Your task to perform on an android device: Show me popular videos on Youtube Image 0: 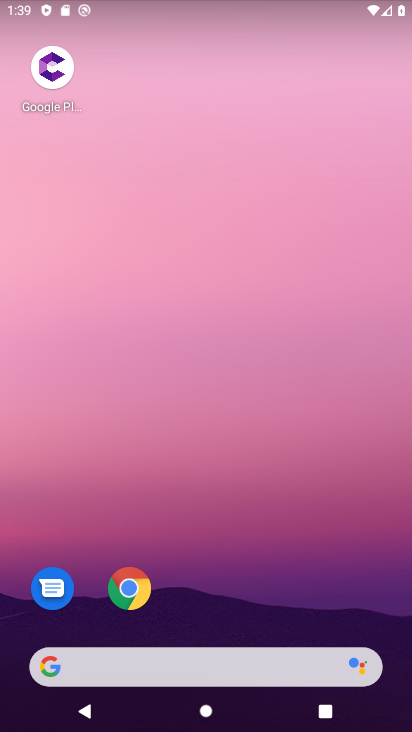
Step 0: drag from (133, 633) to (102, 12)
Your task to perform on an android device: Show me popular videos on Youtube Image 1: 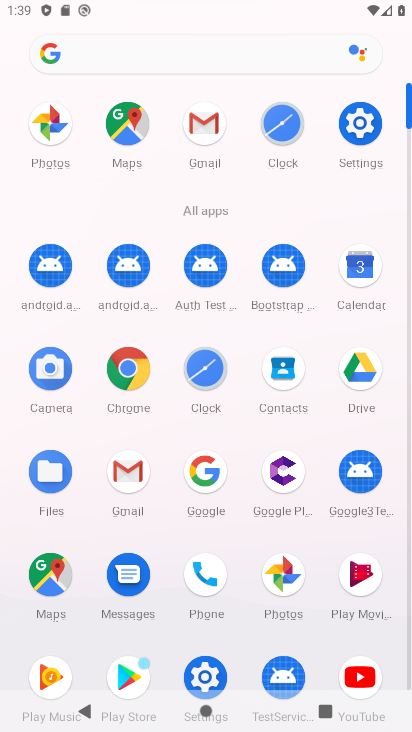
Step 1: click (365, 669)
Your task to perform on an android device: Show me popular videos on Youtube Image 2: 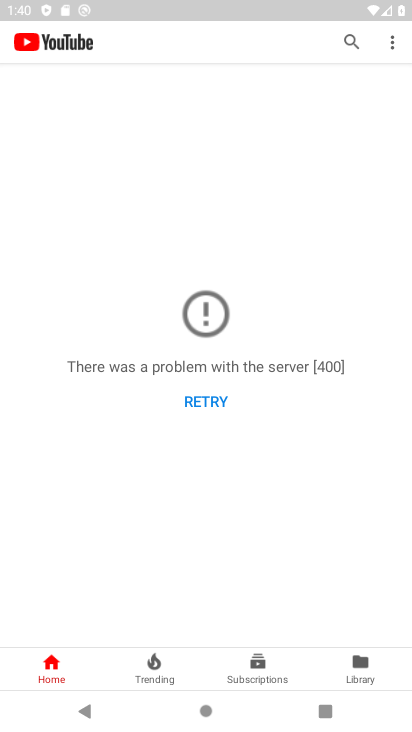
Step 2: click (148, 673)
Your task to perform on an android device: Show me popular videos on Youtube Image 3: 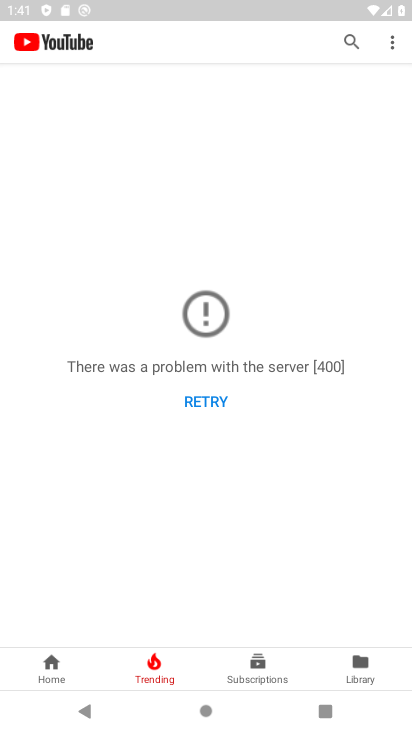
Step 3: task complete